Your task to perform on an android device: change notifications settings Image 0: 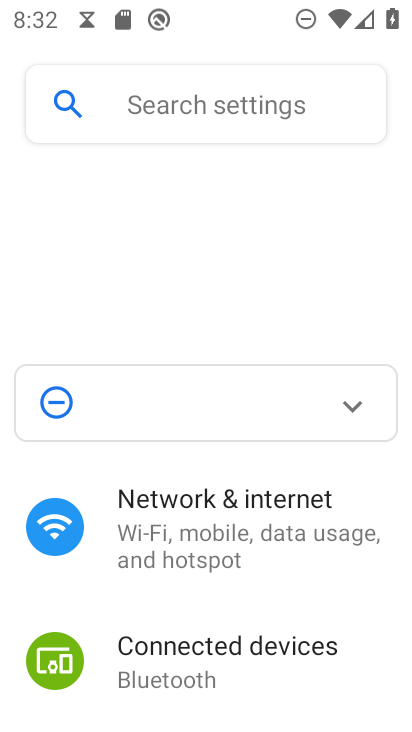
Step 0: press home button
Your task to perform on an android device: change notifications settings Image 1: 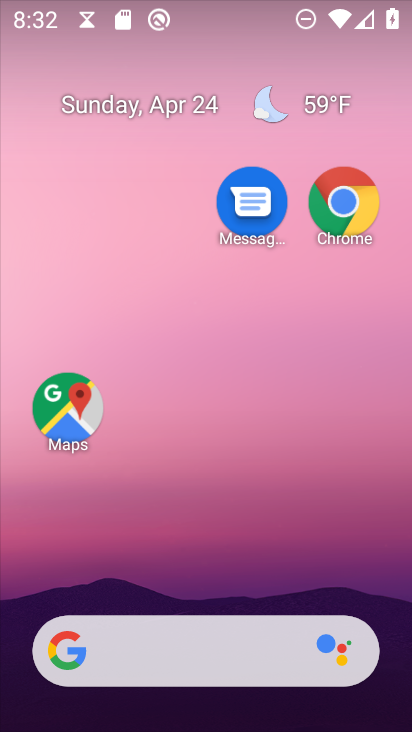
Step 1: drag from (202, 628) to (294, 17)
Your task to perform on an android device: change notifications settings Image 2: 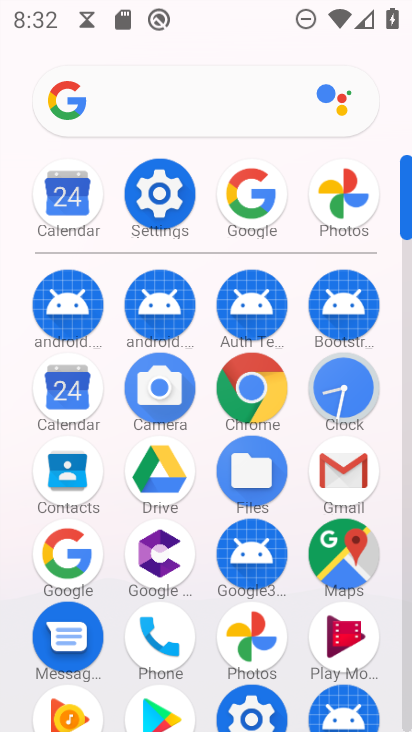
Step 2: click (170, 209)
Your task to perform on an android device: change notifications settings Image 3: 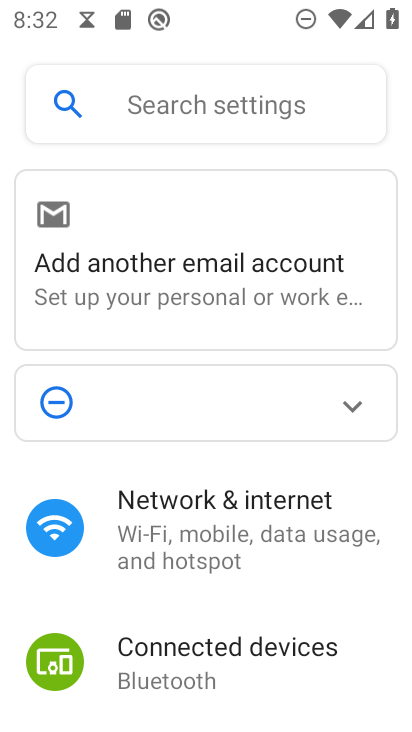
Step 3: drag from (213, 627) to (348, 316)
Your task to perform on an android device: change notifications settings Image 4: 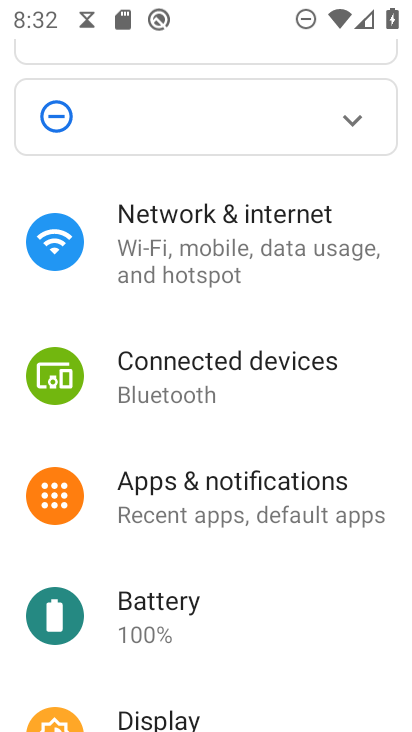
Step 4: click (254, 493)
Your task to perform on an android device: change notifications settings Image 5: 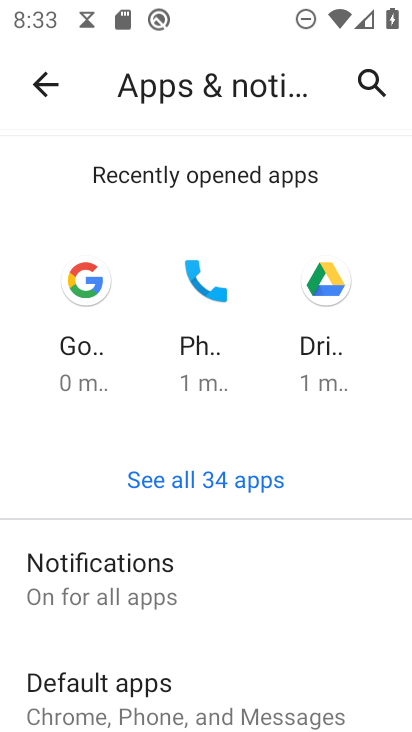
Step 5: click (156, 574)
Your task to perform on an android device: change notifications settings Image 6: 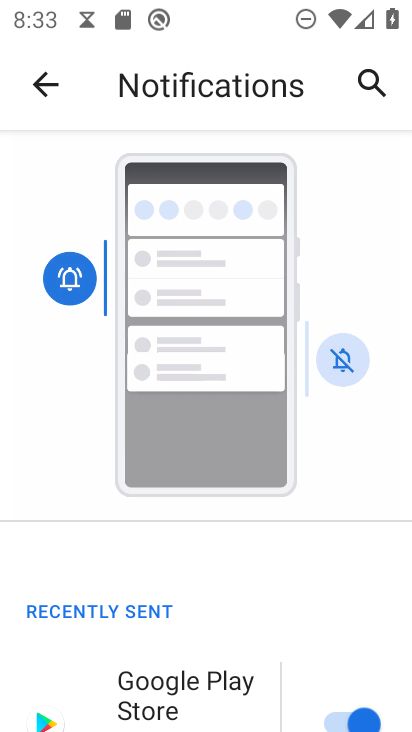
Step 6: drag from (339, 274) to (278, 410)
Your task to perform on an android device: change notifications settings Image 7: 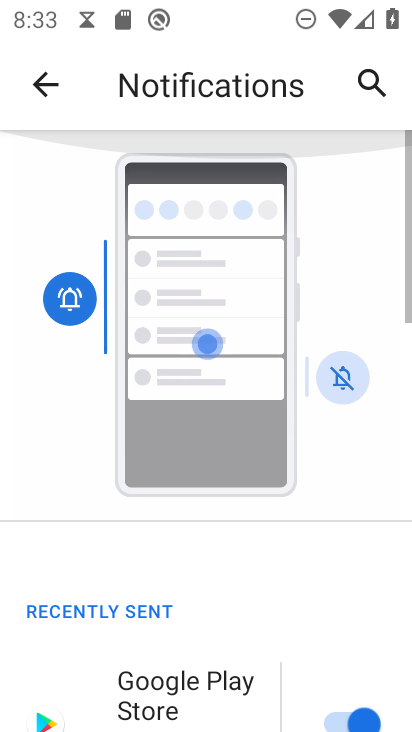
Step 7: drag from (237, 571) to (345, 276)
Your task to perform on an android device: change notifications settings Image 8: 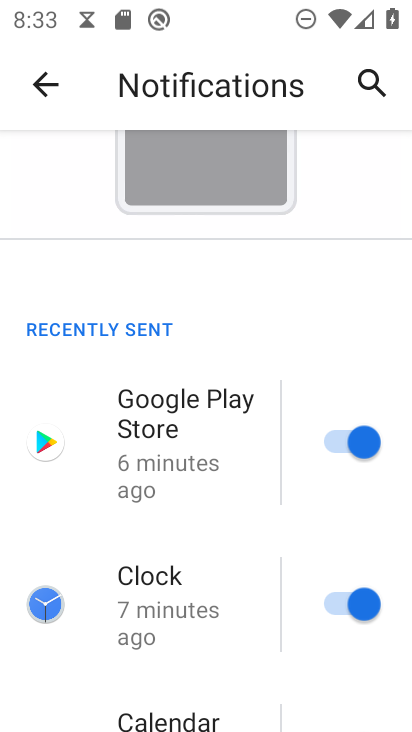
Step 8: click (336, 435)
Your task to perform on an android device: change notifications settings Image 9: 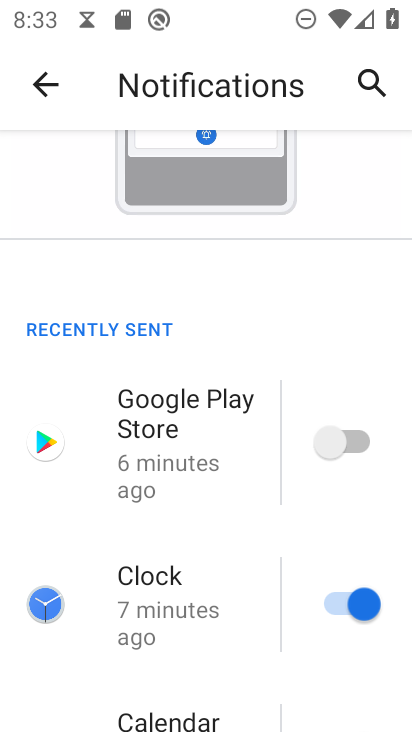
Step 9: task complete